Your task to perform on an android device: Go to Yahoo.com Image 0: 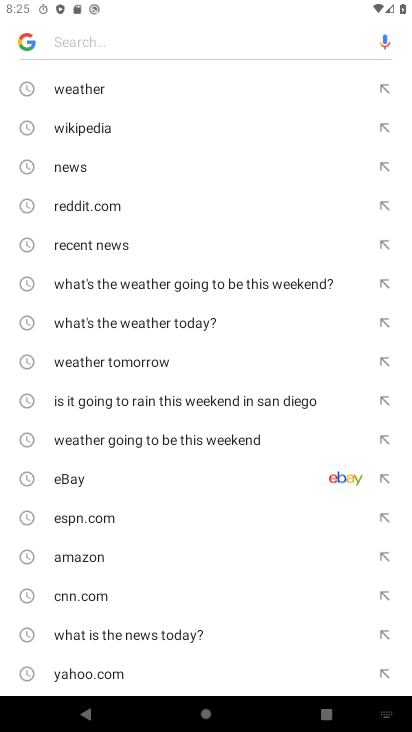
Step 0: press home button
Your task to perform on an android device: Go to Yahoo.com Image 1: 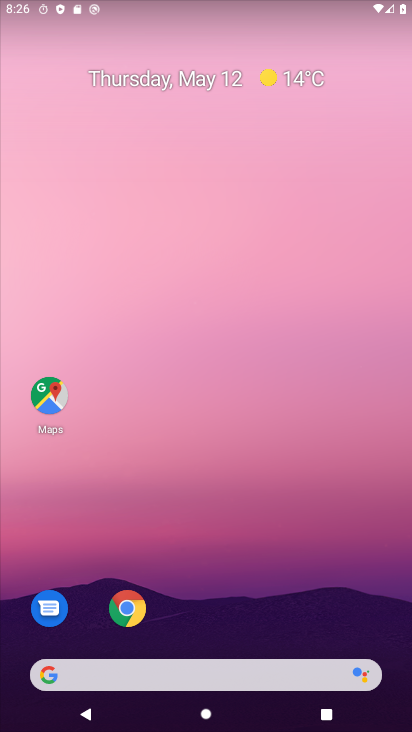
Step 1: click (135, 624)
Your task to perform on an android device: Go to Yahoo.com Image 2: 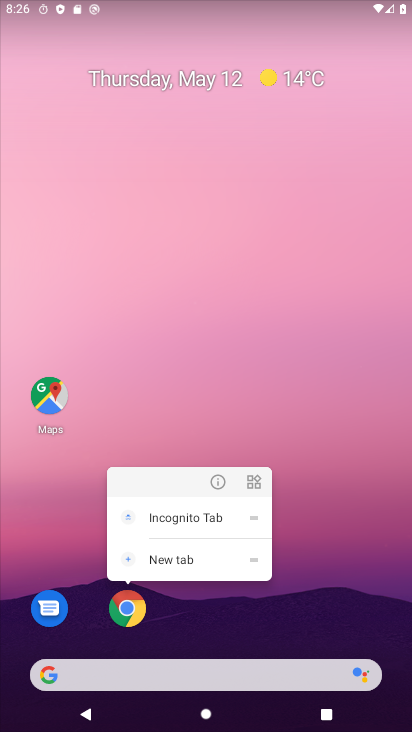
Step 2: click (135, 624)
Your task to perform on an android device: Go to Yahoo.com Image 3: 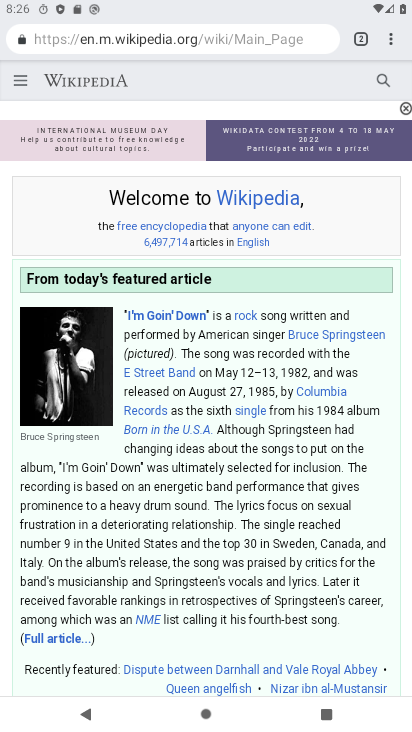
Step 3: click (373, 37)
Your task to perform on an android device: Go to Yahoo.com Image 4: 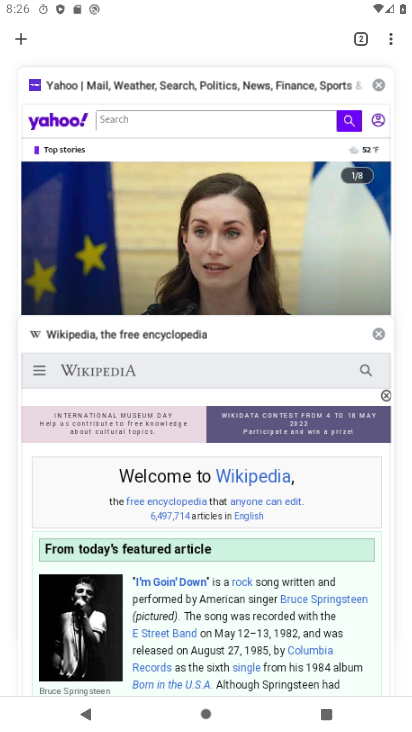
Step 4: click (22, 37)
Your task to perform on an android device: Go to Yahoo.com Image 5: 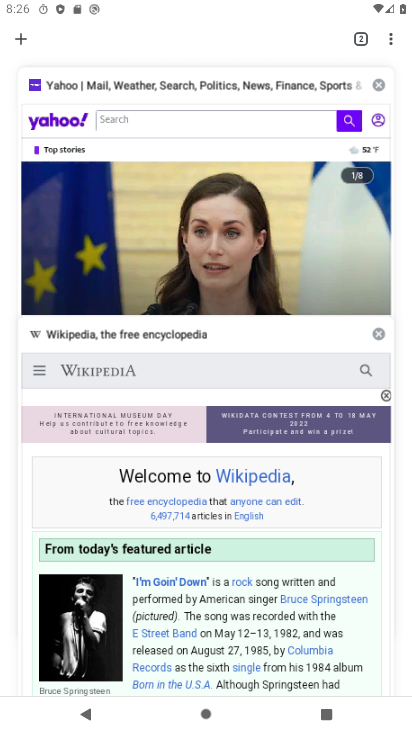
Step 5: click (22, 30)
Your task to perform on an android device: Go to Yahoo.com Image 6: 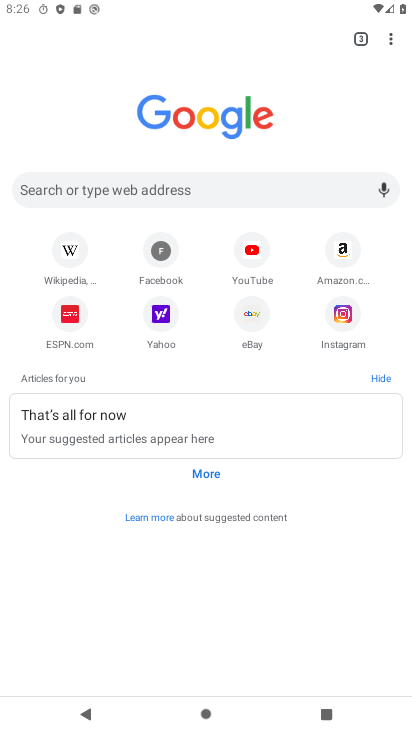
Step 6: click (171, 320)
Your task to perform on an android device: Go to Yahoo.com Image 7: 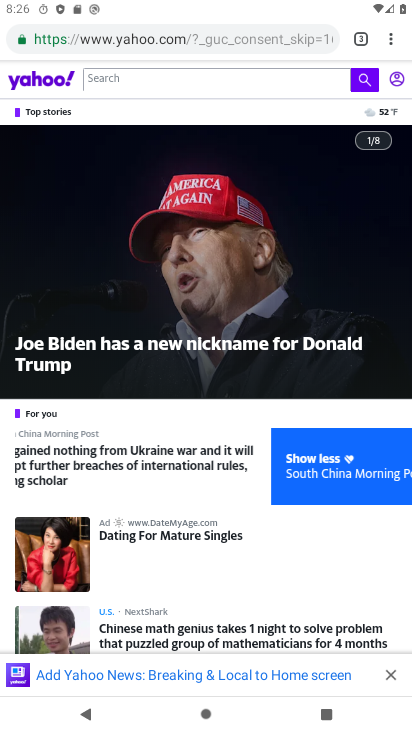
Step 7: task complete